Your task to perform on an android device: Open privacy settings Image 0: 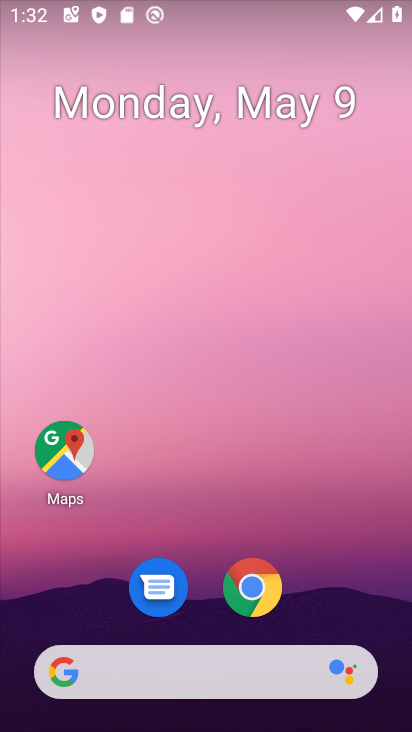
Step 0: click (239, 592)
Your task to perform on an android device: Open privacy settings Image 1: 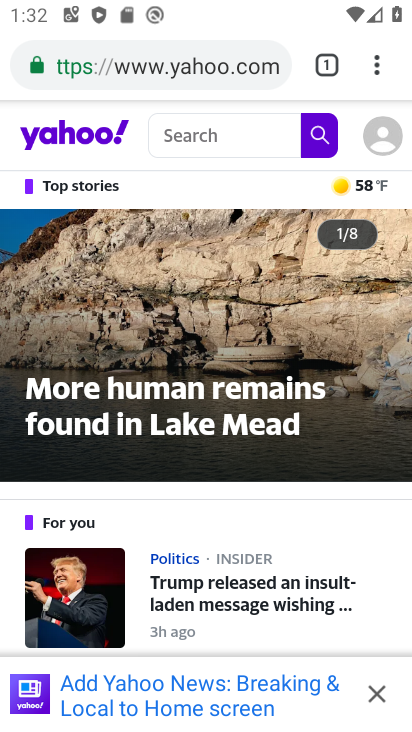
Step 1: drag from (382, 52) to (235, 653)
Your task to perform on an android device: Open privacy settings Image 2: 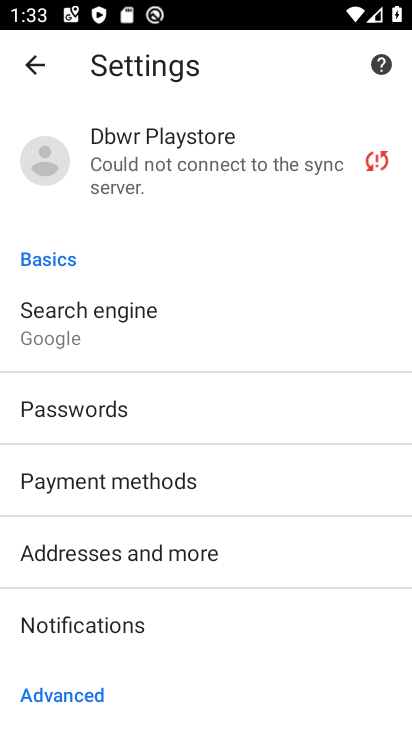
Step 2: drag from (235, 653) to (409, 211)
Your task to perform on an android device: Open privacy settings Image 3: 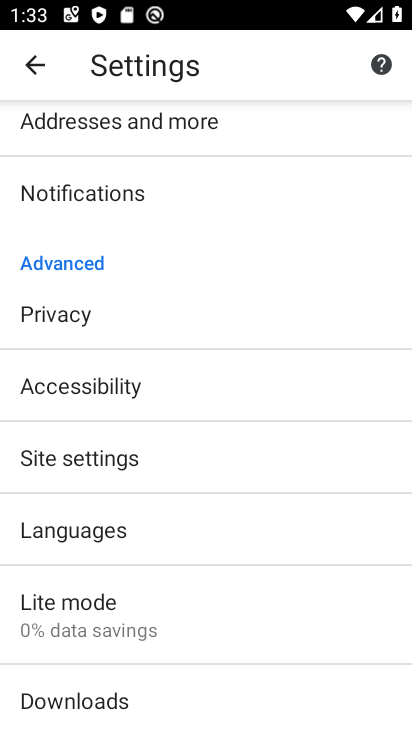
Step 3: drag from (211, 673) to (274, 476)
Your task to perform on an android device: Open privacy settings Image 4: 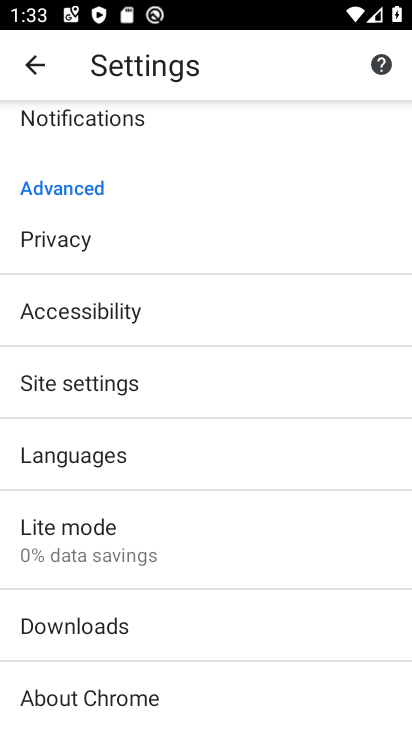
Step 4: click (226, 251)
Your task to perform on an android device: Open privacy settings Image 5: 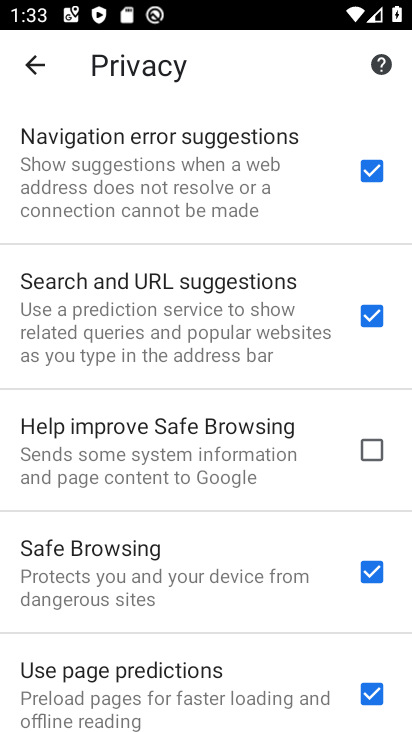
Step 5: task complete